Your task to perform on an android device: Open Google Maps Image 0: 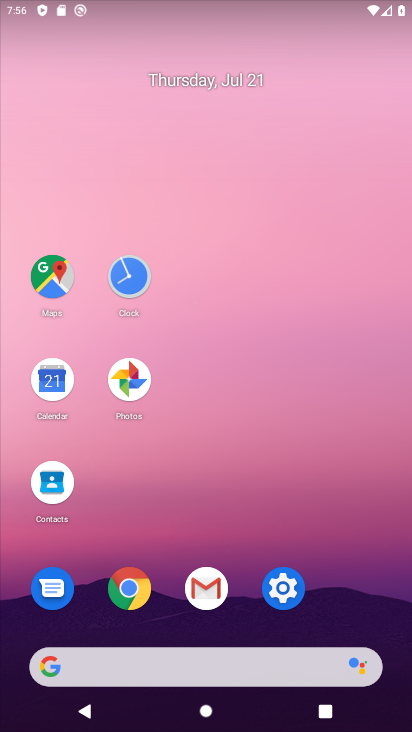
Step 0: click (48, 282)
Your task to perform on an android device: Open Google Maps Image 1: 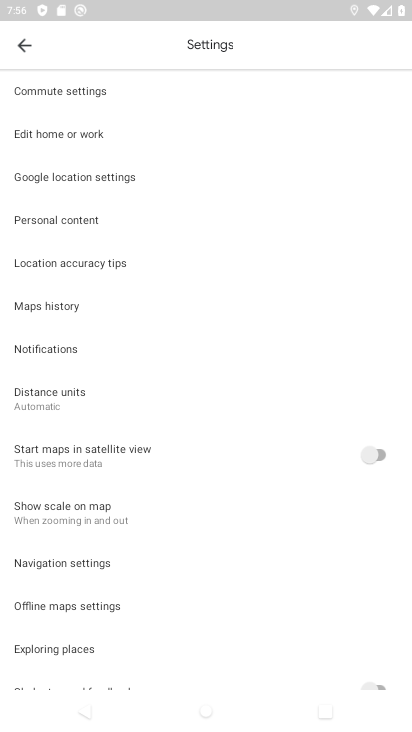
Step 1: click (22, 44)
Your task to perform on an android device: Open Google Maps Image 2: 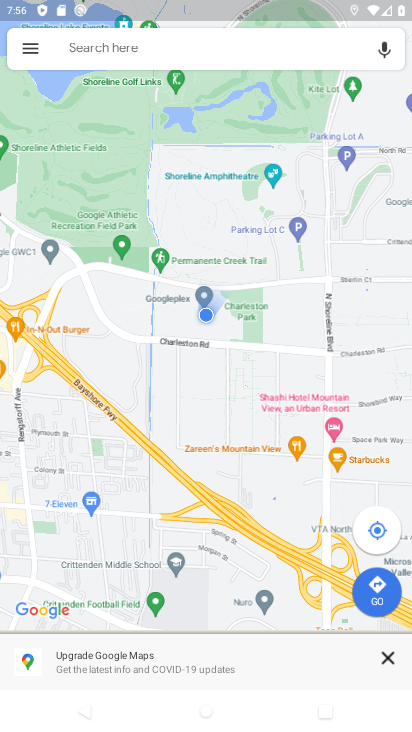
Step 2: task complete